Your task to perform on an android device: turn off wifi Image 0: 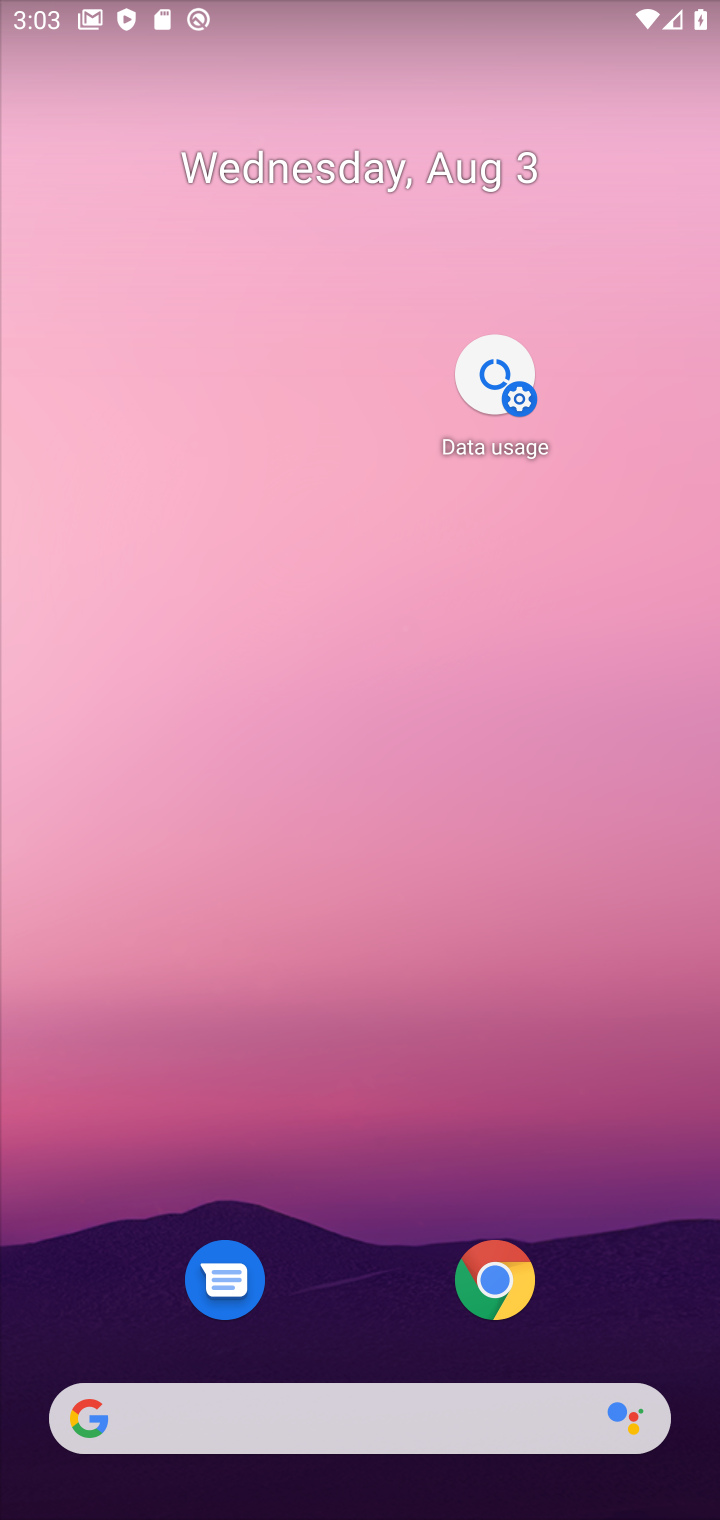
Step 0: drag from (257, 458) to (311, 608)
Your task to perform on an android device: turn off wifi Image 1: 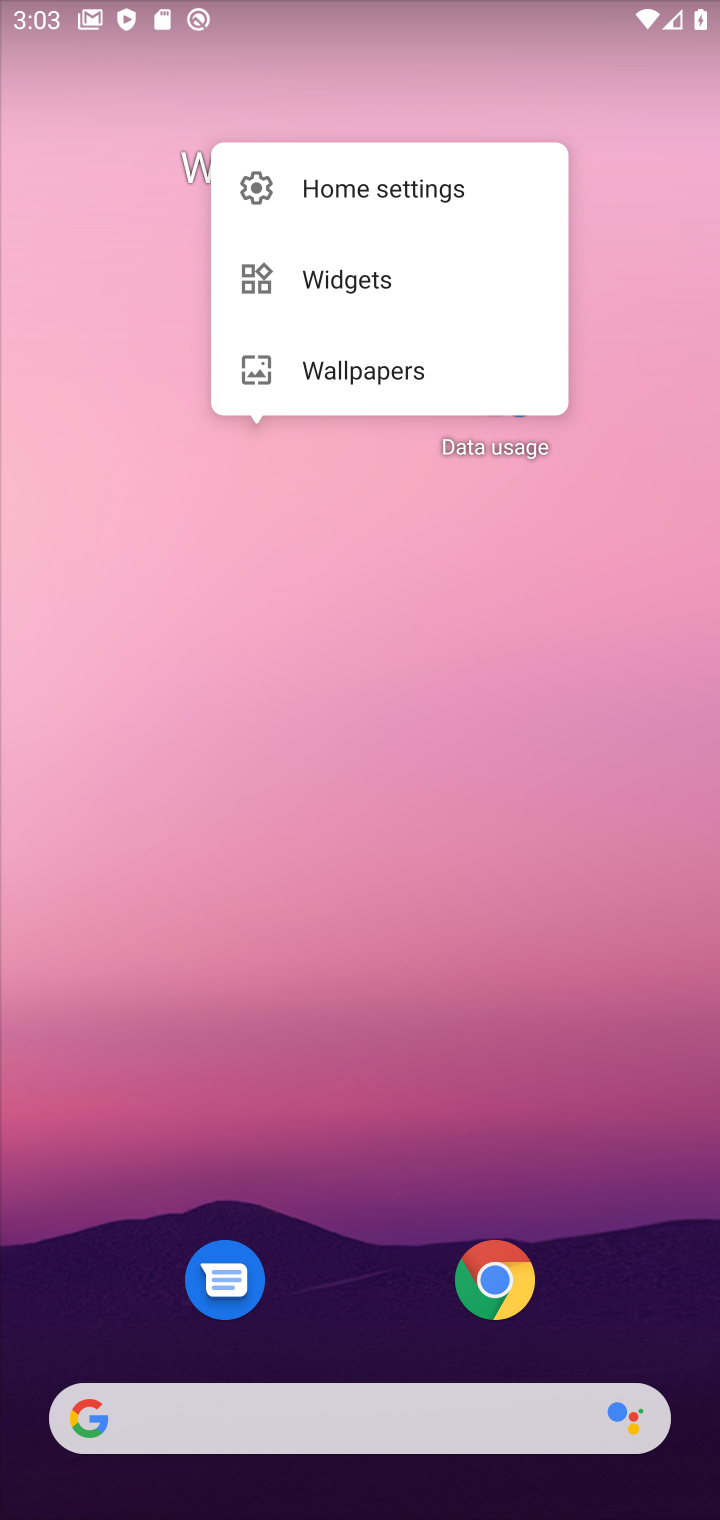
Step 1: drag from (433, 1234) to (284, 238)
Your task to perform on an android device: turn off wifi Image 2: 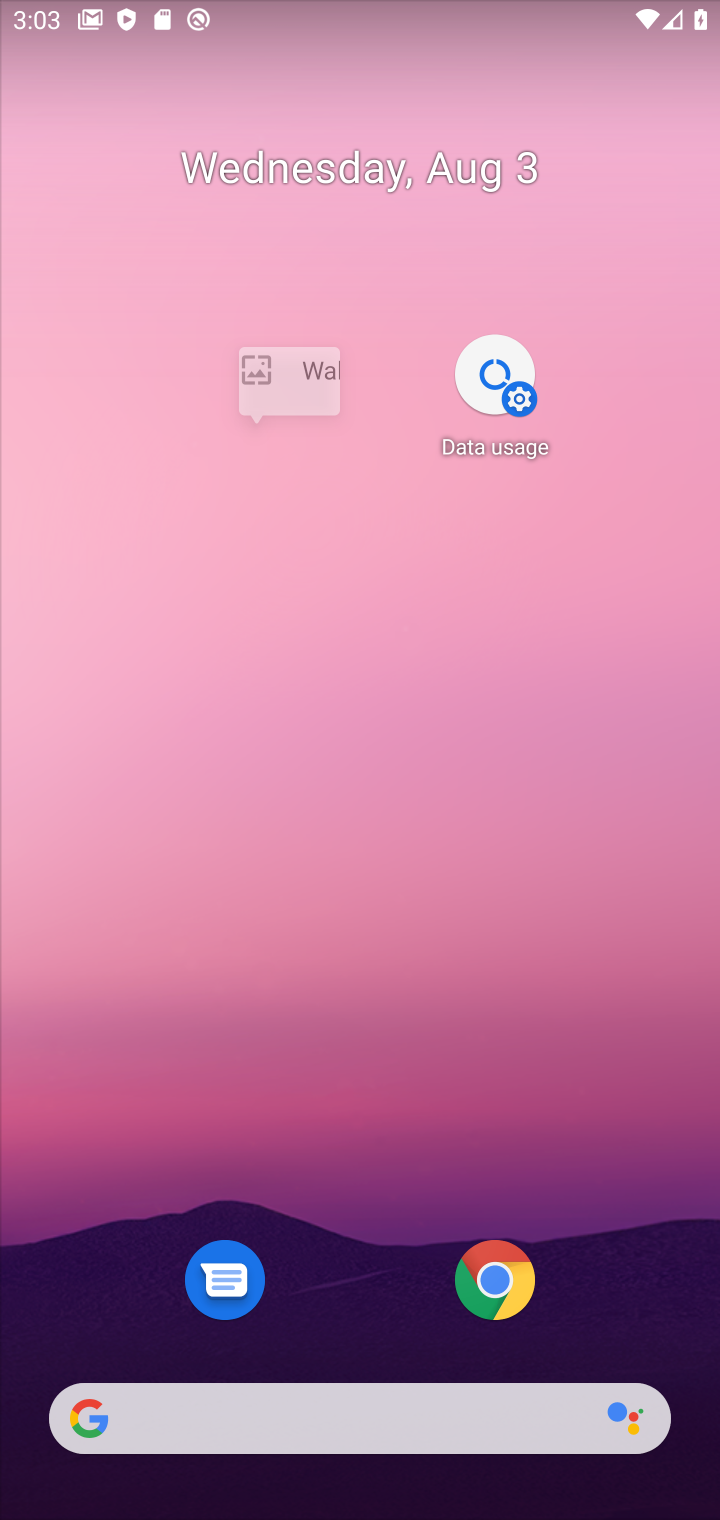
Step 2: drag from (286, 518) to (518, 318)
Your task to perform on an android device: turn off wifi Image 3: 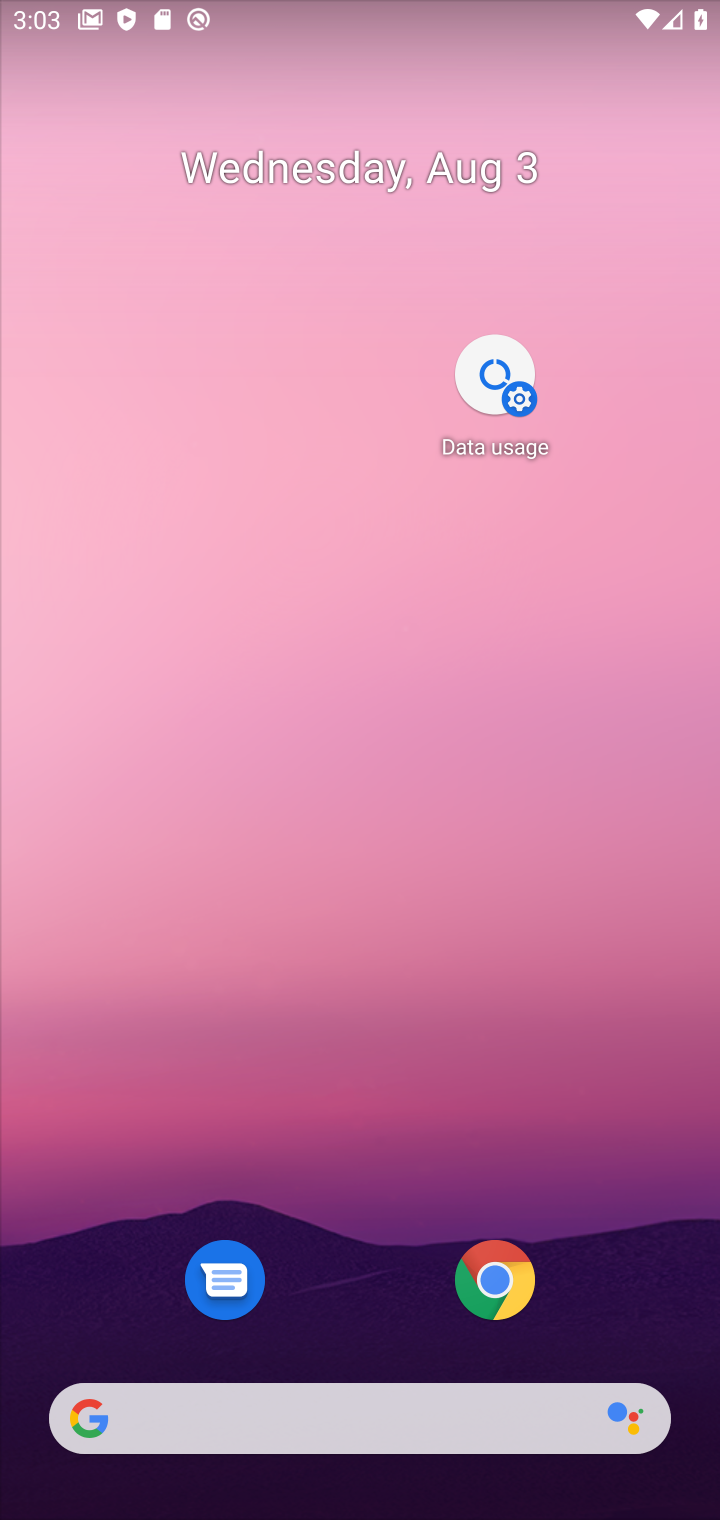
Step 3: drag from (481, 1290) to (375, 376)
Your task to perform on an android device: turn off wifi Image 4: 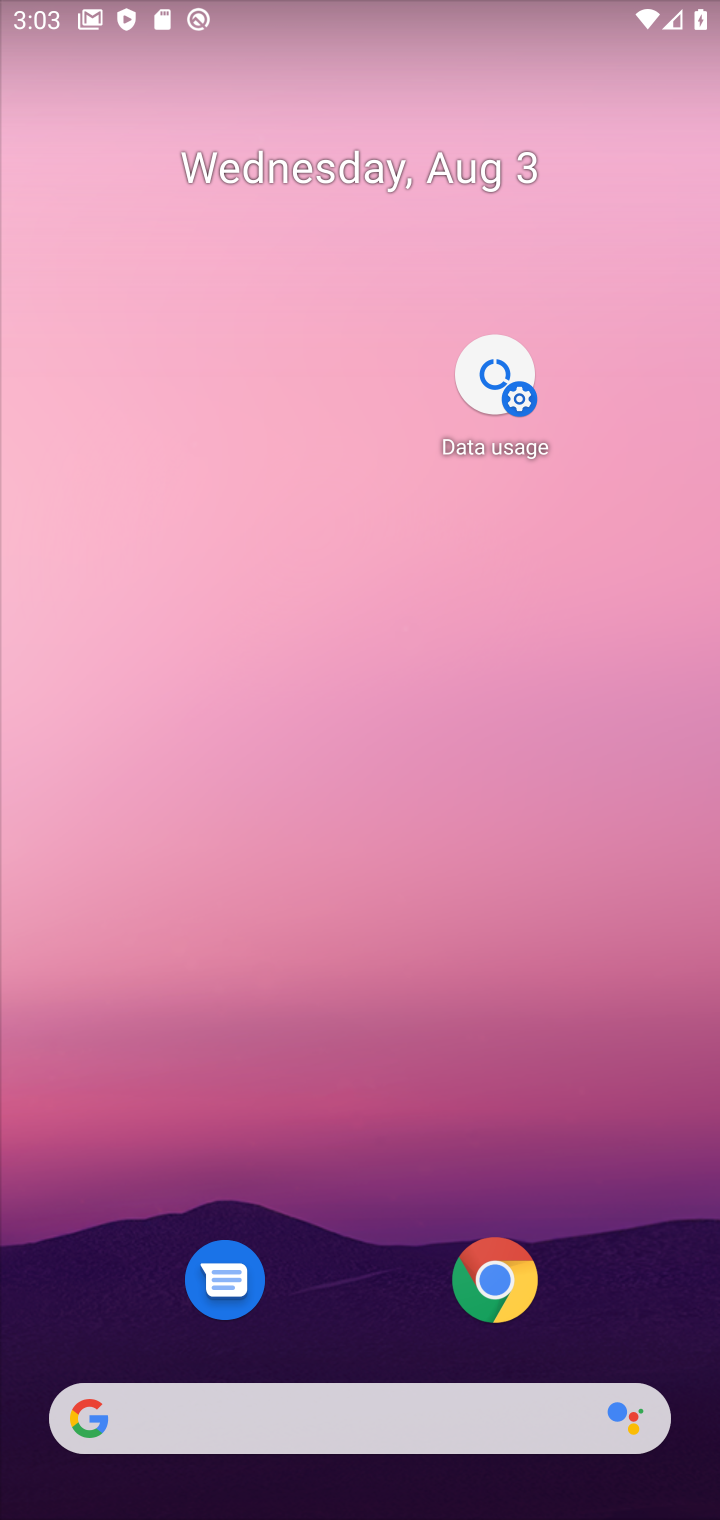
Step 4: click (337, 415)
Your task to perform on an android device: turn off wifi Image 5: 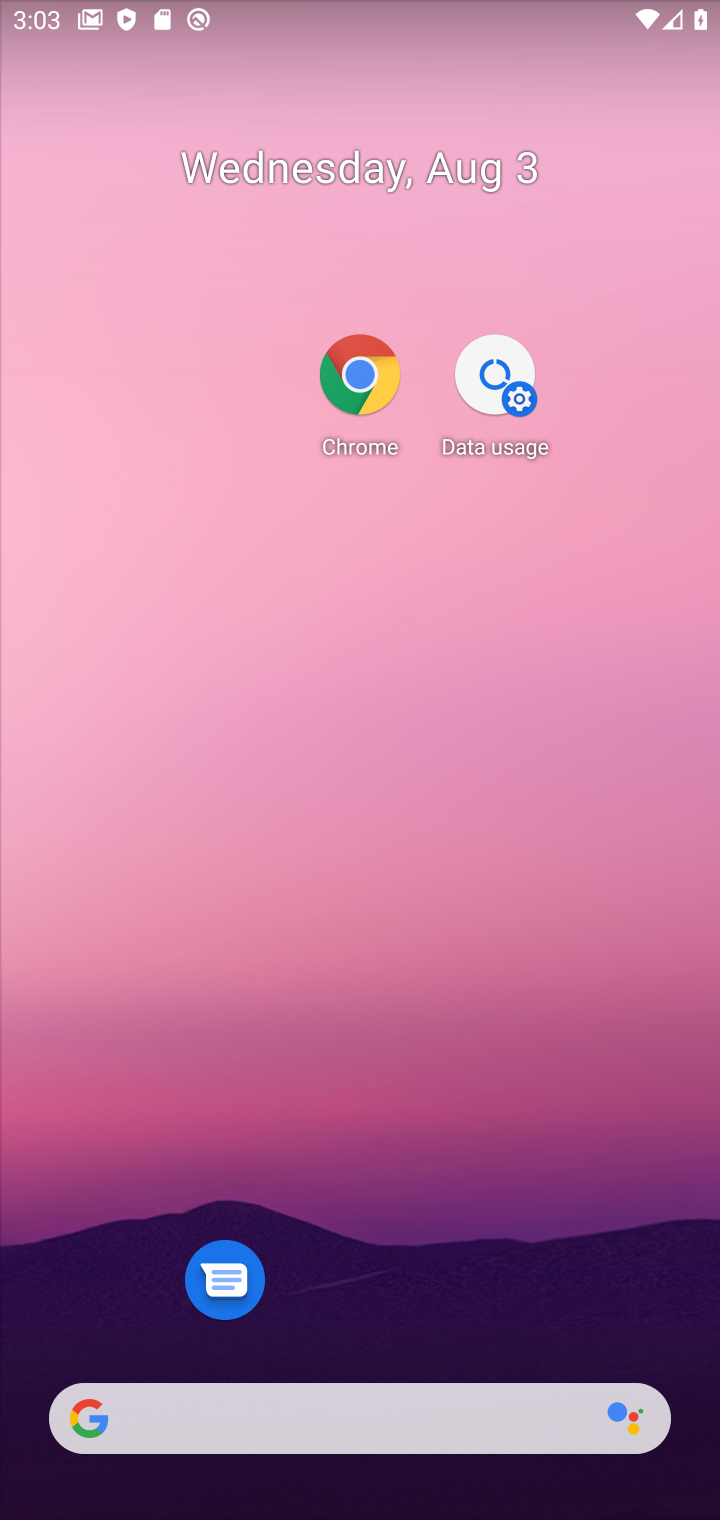
Step 5: drag from (263, 513) to (261, 426)
Your task to perform on an android device: turn off wifi Image 6: 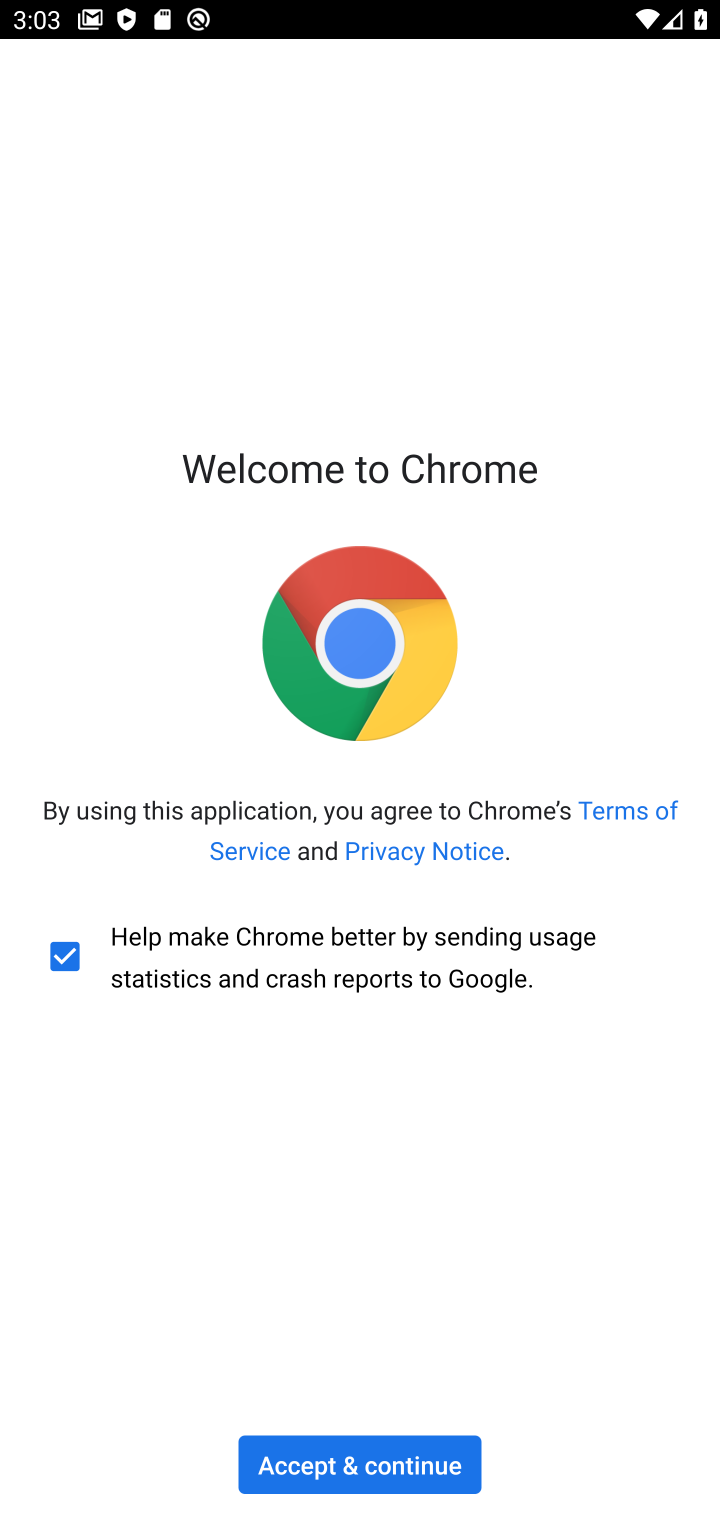
Step 6: drag from (336, 1122) to (89, 211)
Your task to perform on an android device: turn off wifi Image 7: 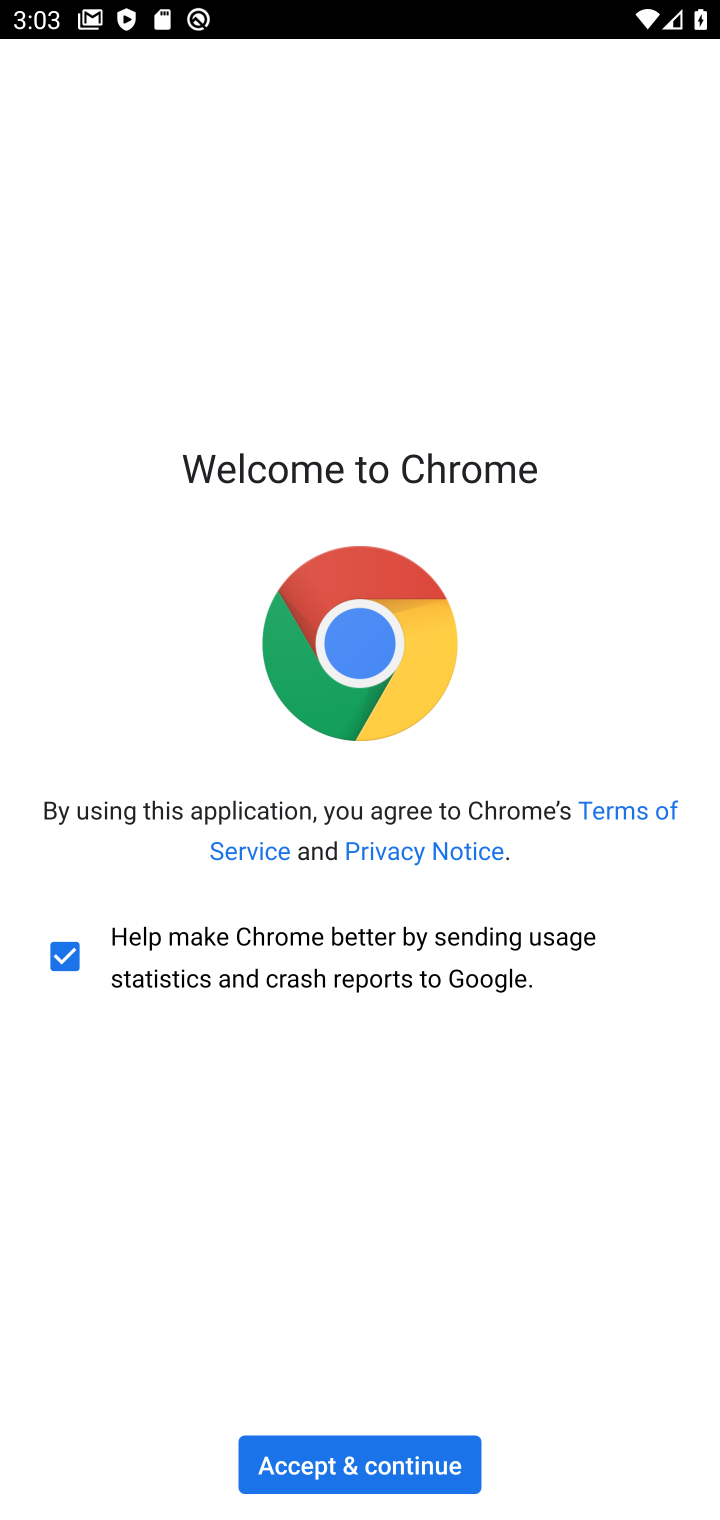
Step 7: click (332, 1453)
Your task to perform on an android device: turn off wifi Image 8: 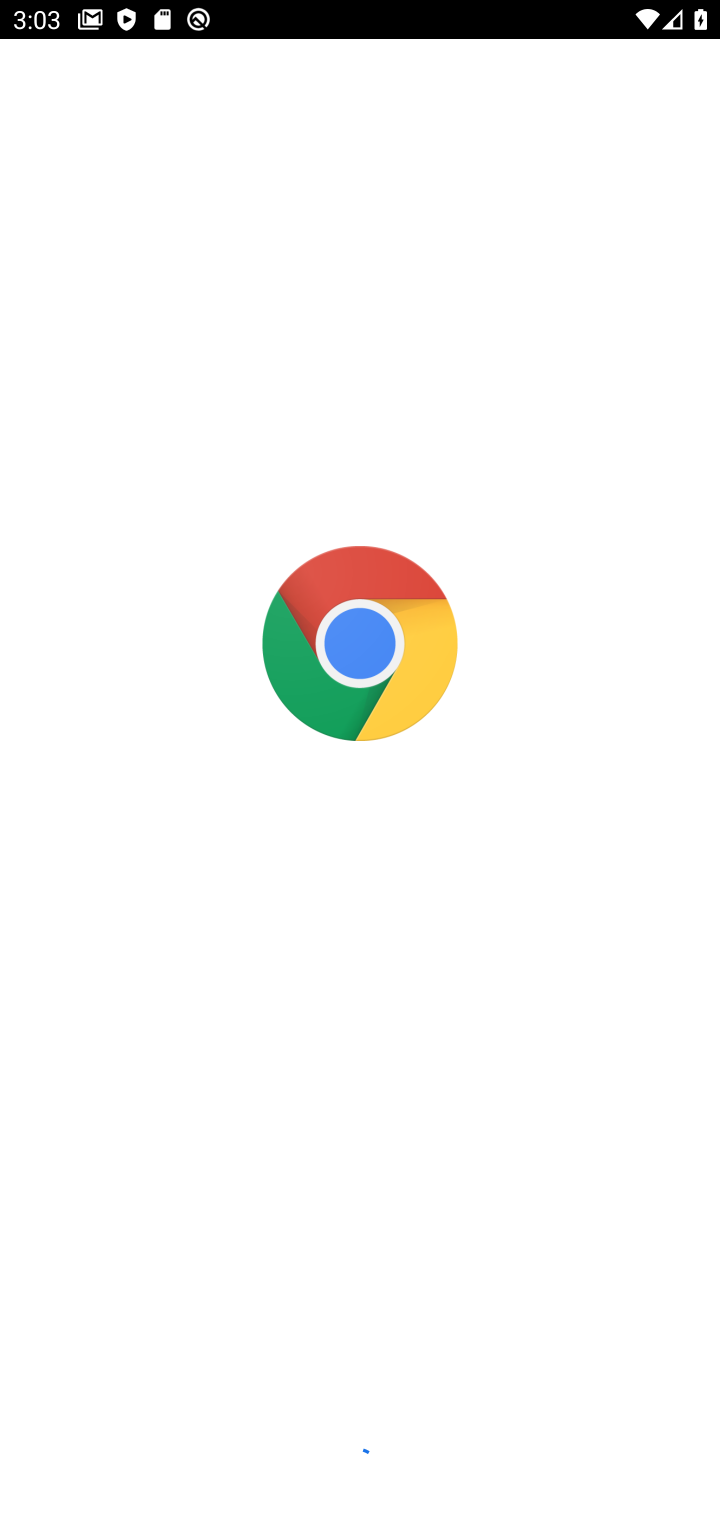
Step 8: click (334, 1453)
Your task to perform on an android device: turn off wifi Image 9: 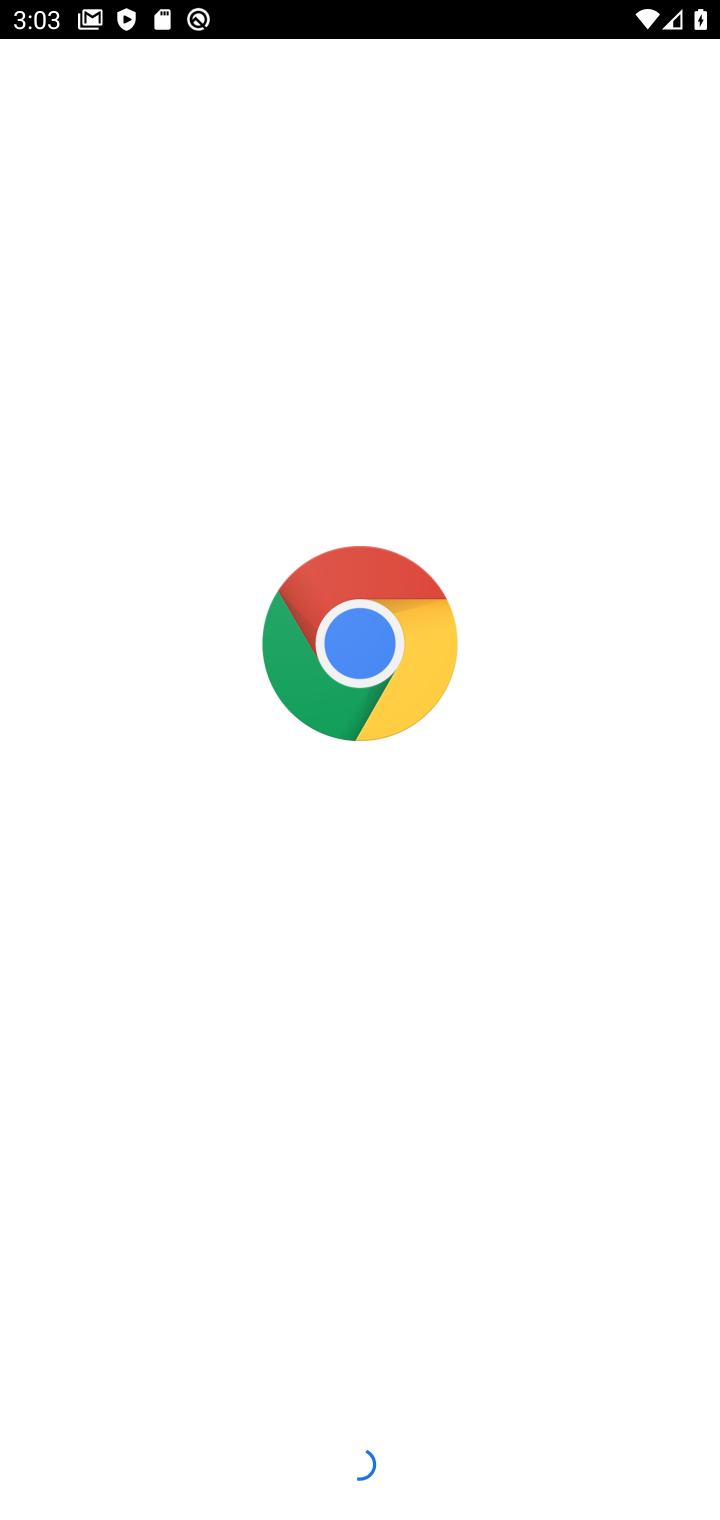
Step 9: drag from (374, 1243) to (168, 304)
Your task to perform on an android device: turn off wifi Image 10: 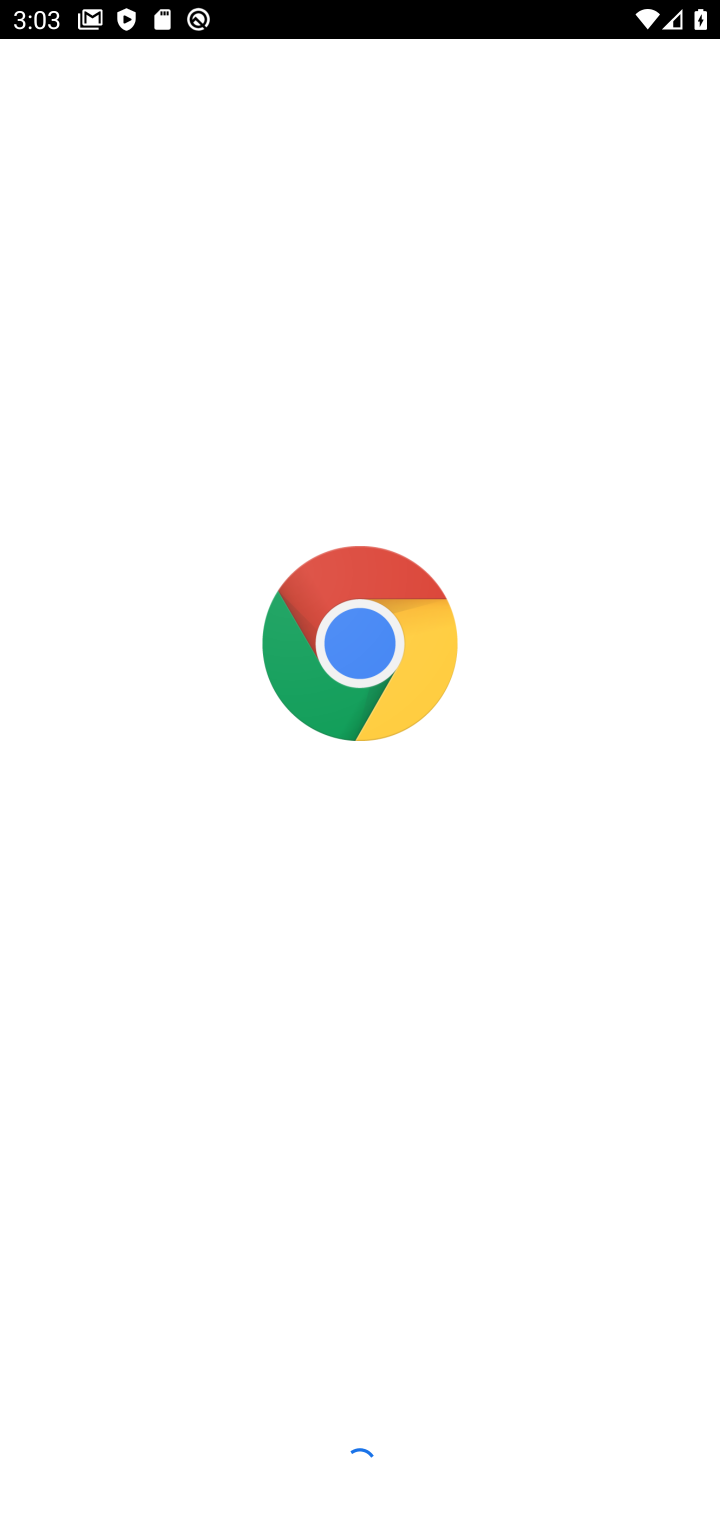
Step 10: click (130, 266)
Your task to perform on an android device: turn off wifi Image 11: 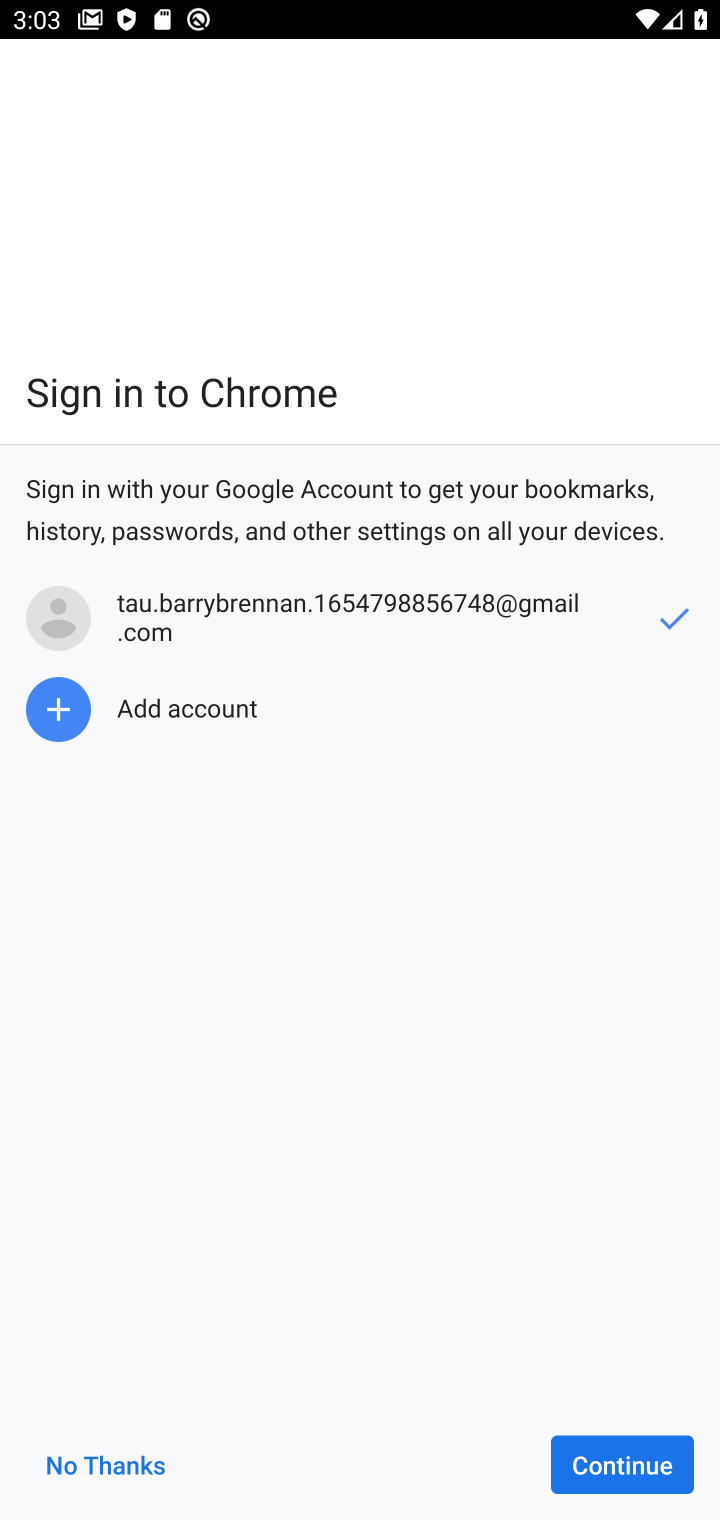
Step 11: click (85, 1468)
Your task to perform on an android device: turn off wifi Image 12: 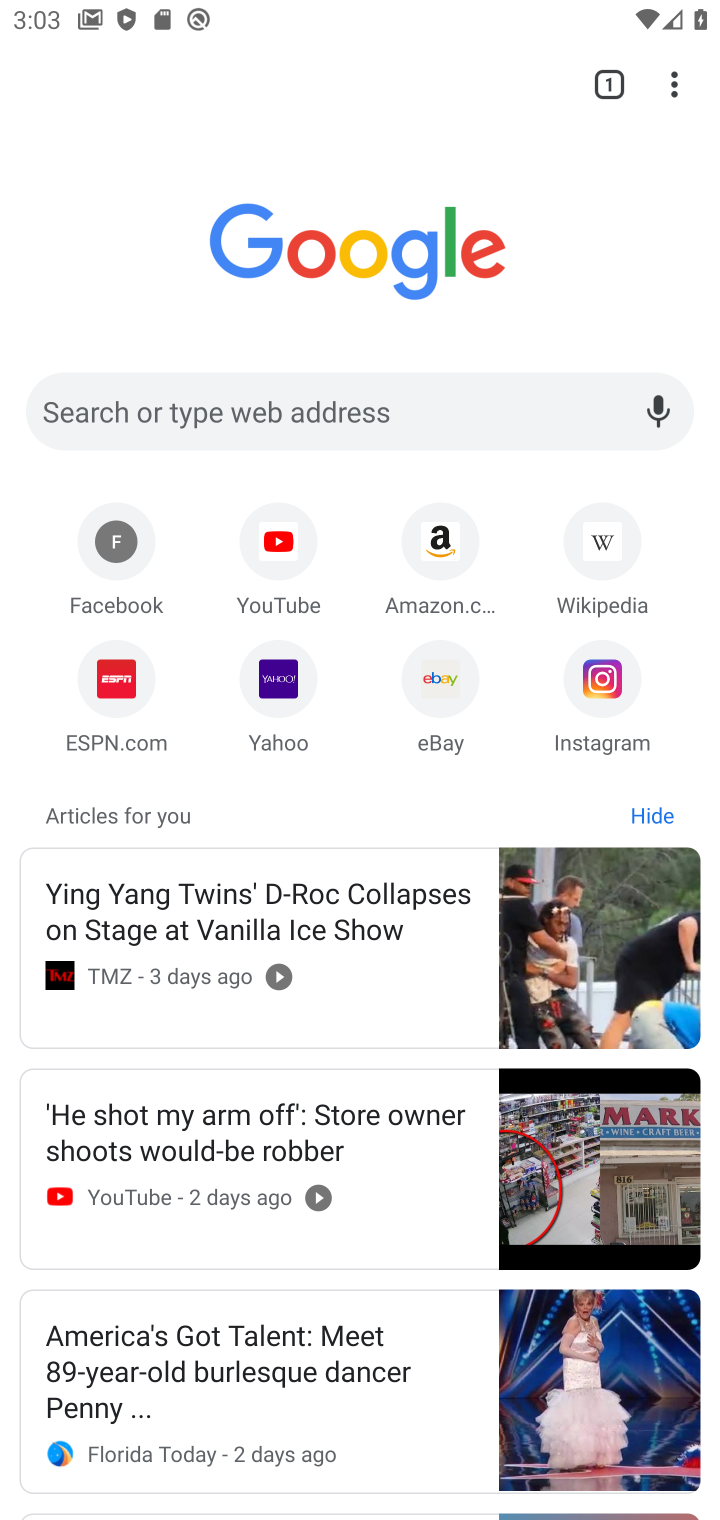
Step 12: press back button
Your task to perform on an android device: turn off wifi Image 13: 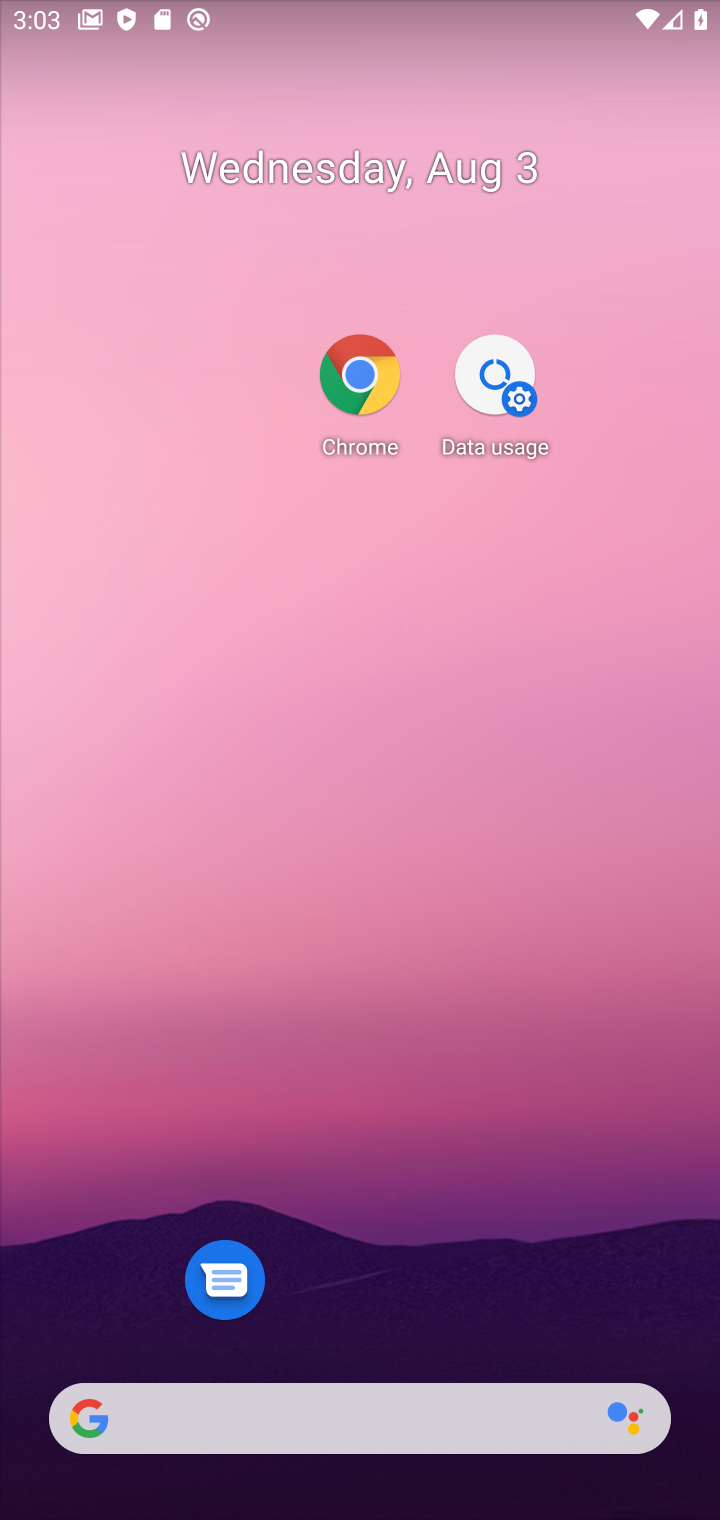
Step 13: drag from (314, 1063) to (192, 192)
Your task to perform on an android device: turn off wifi Image 14: 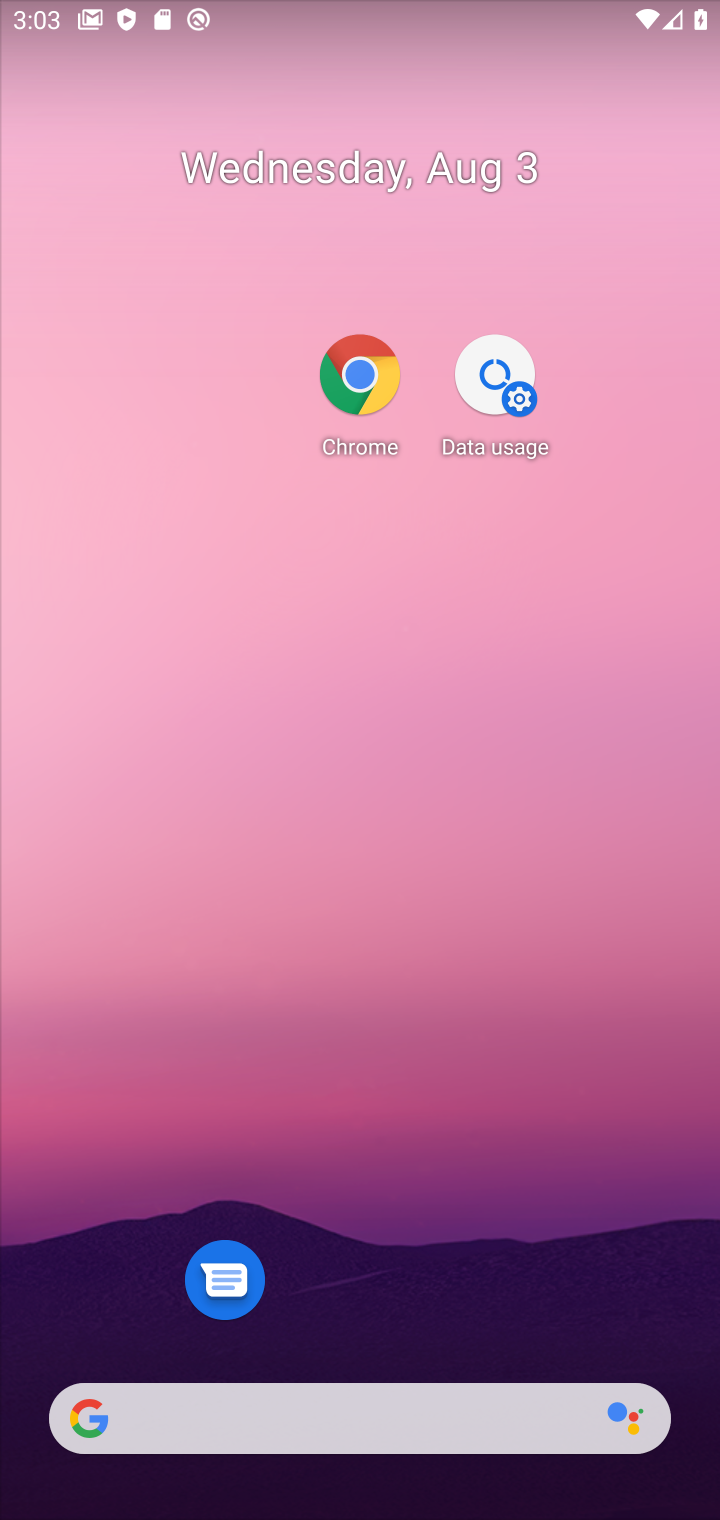
Step 14: click (233, 764)
Your task to perform on an android device: turn off wifi Image 15: 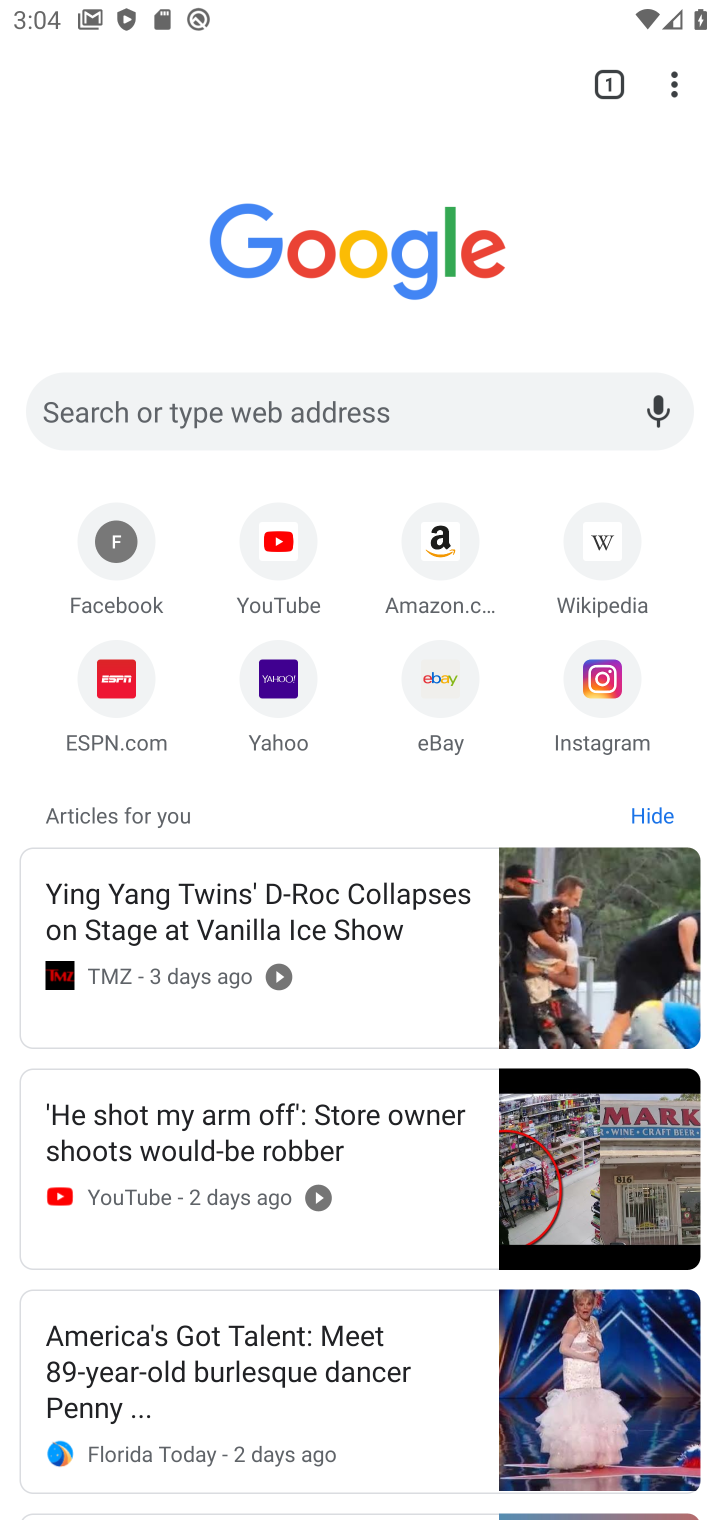
Step 15: press back button
Your task to perform on an android device: turn off wifi Image 16: 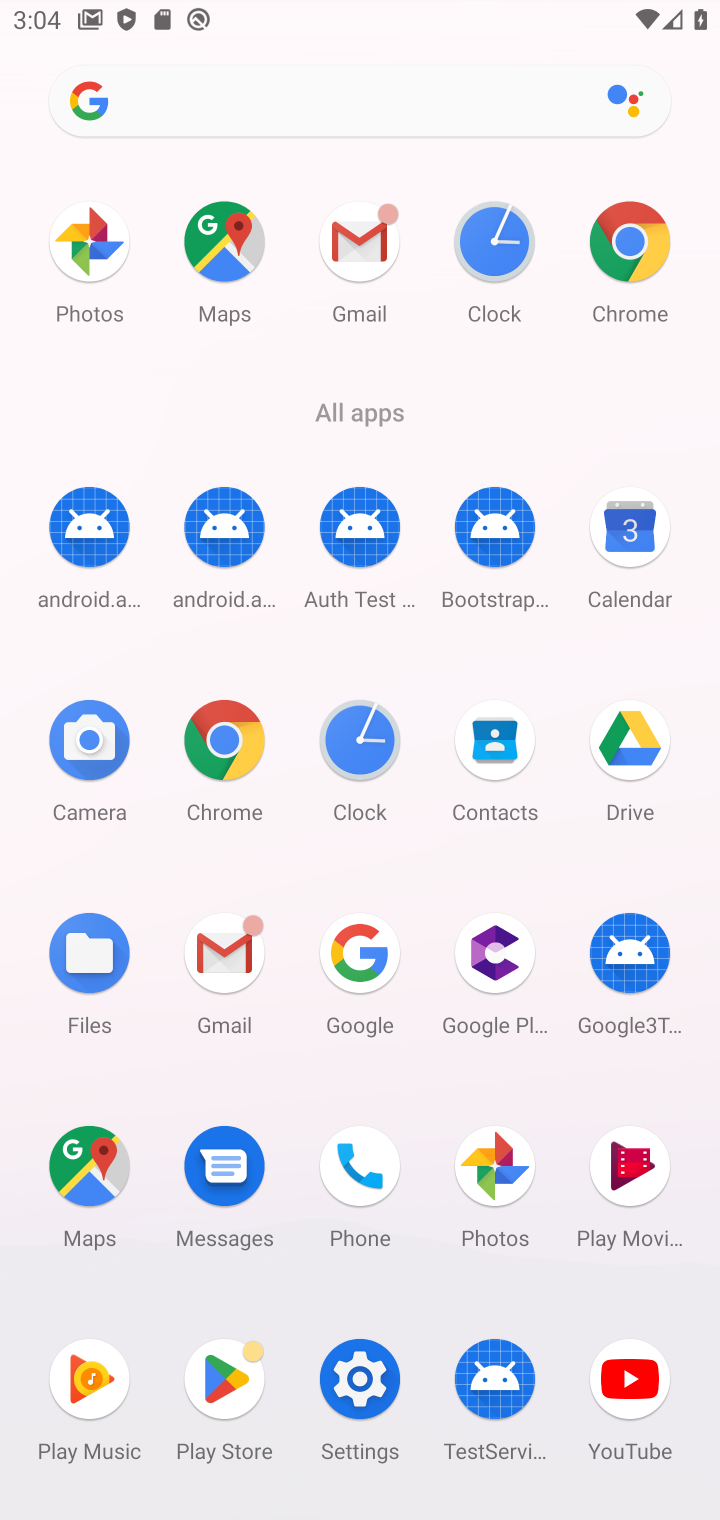
Step 16: click (363, 1384)
Your task to perform on an android device: turn off wifi Image 17: 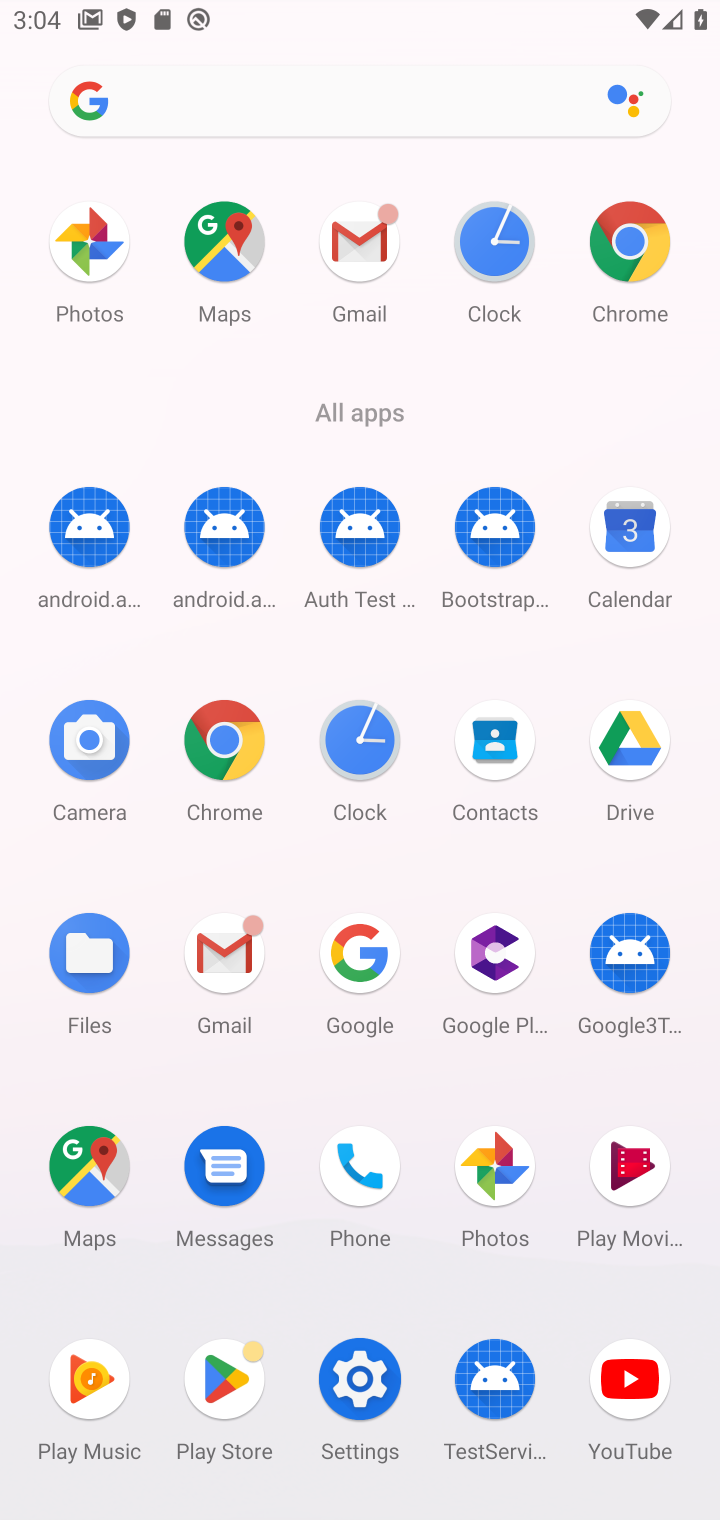
Step 17: click (365, 1382)
Your task to perform on an android device: turn off wifi Image 18: 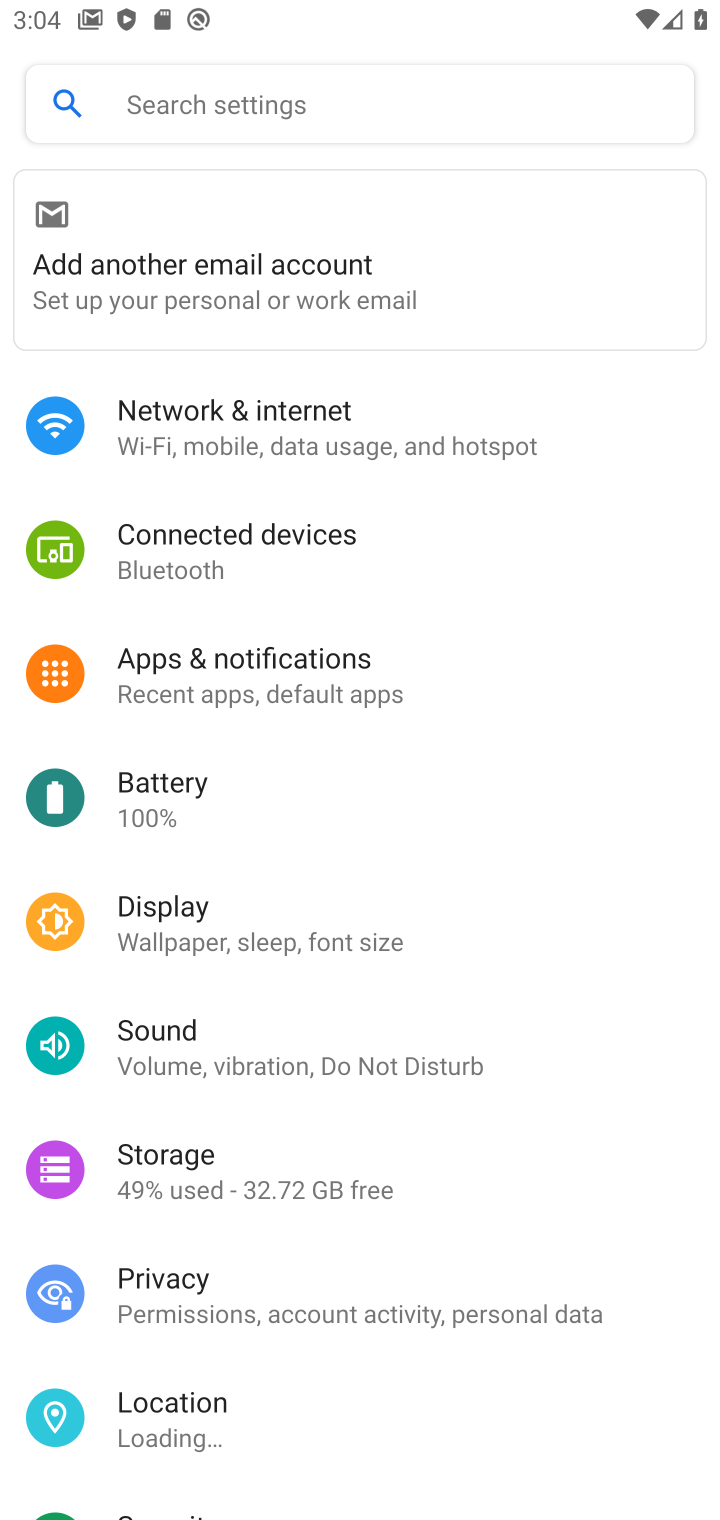
Step 18: click (233, 295)
Your task to perform on an android device: turn off wifi Image 19: 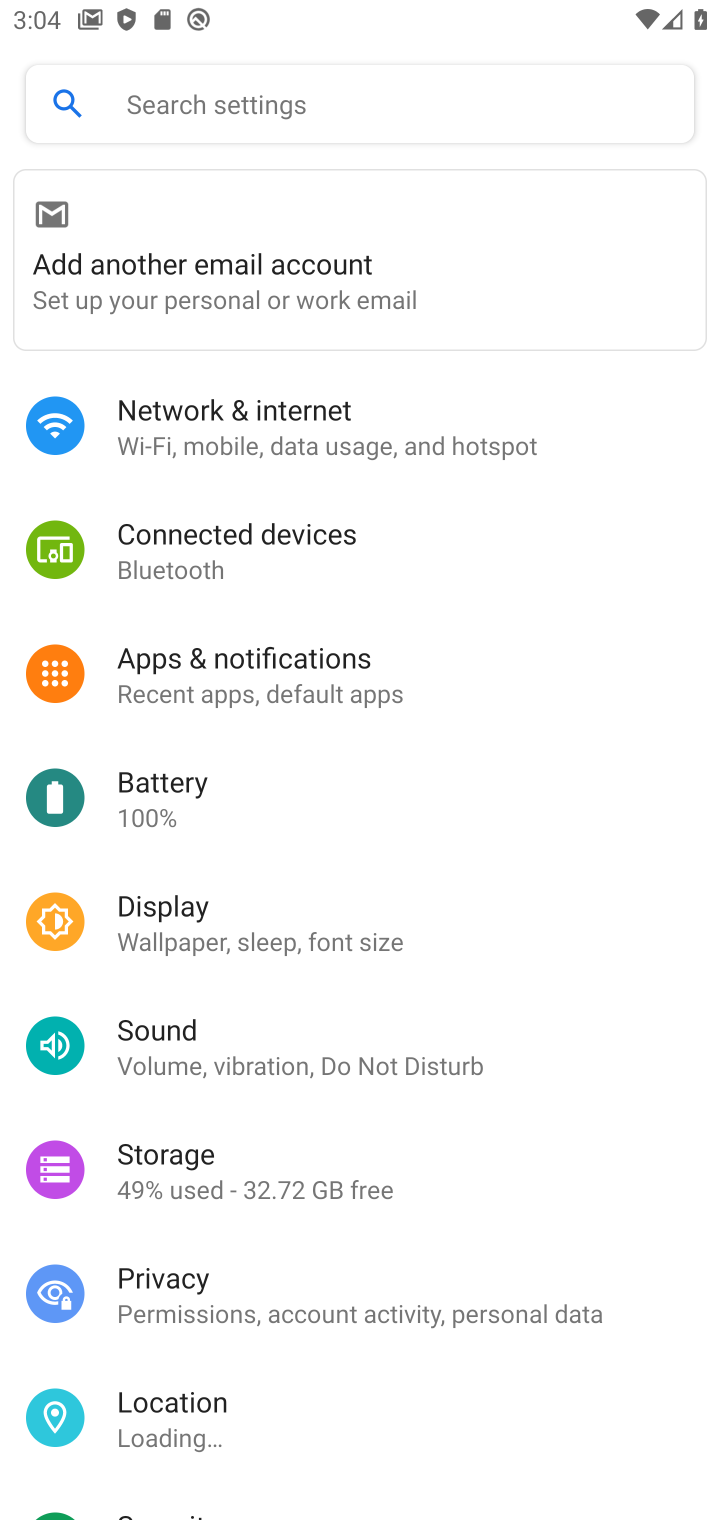
Step 19: click (214, 418)
Your task to perform on an android device: turn off wifi Image 20: 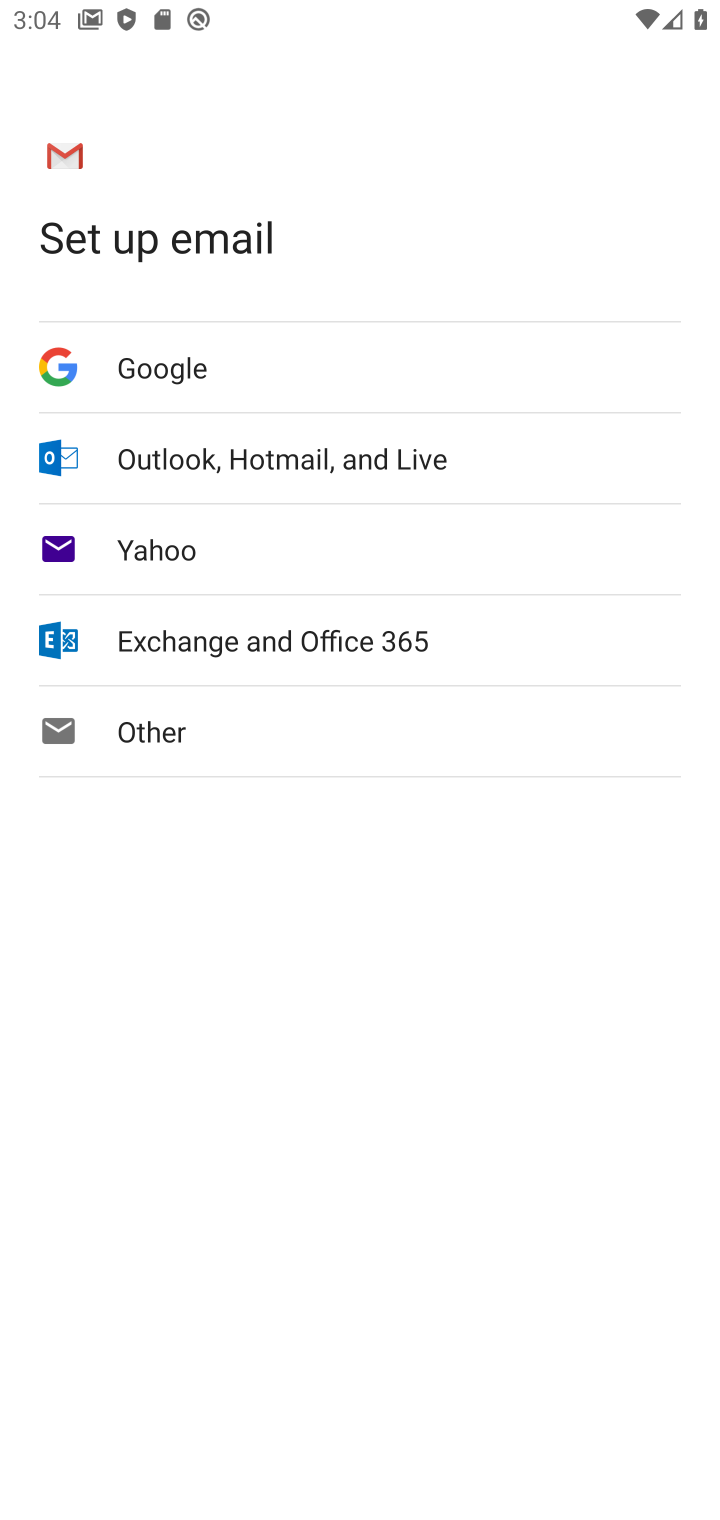
Step 20: click (89, 153)
Your task to perform on an android device: turn off wifi Image 21: 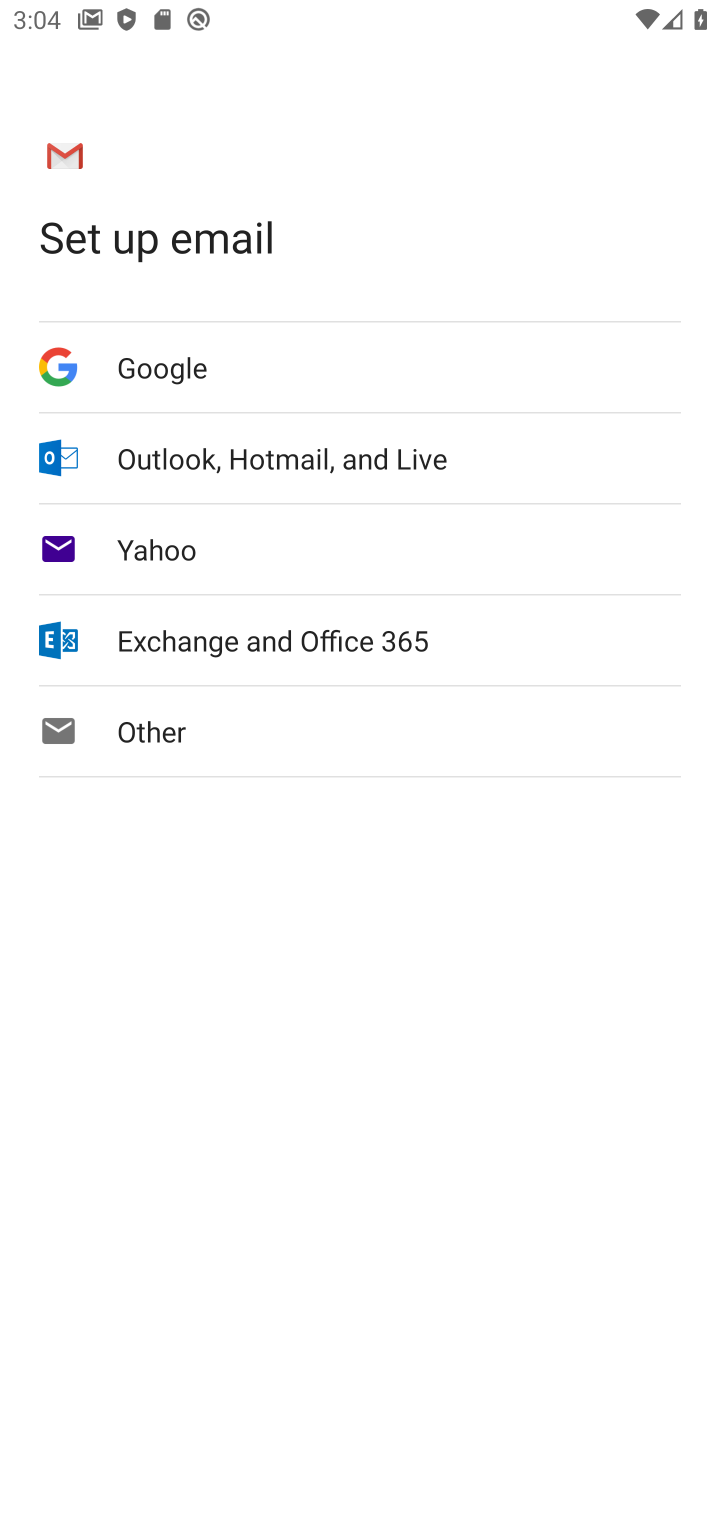
Step 21: press back button
Your task to perform on an android device: turn off wifi Image 22: 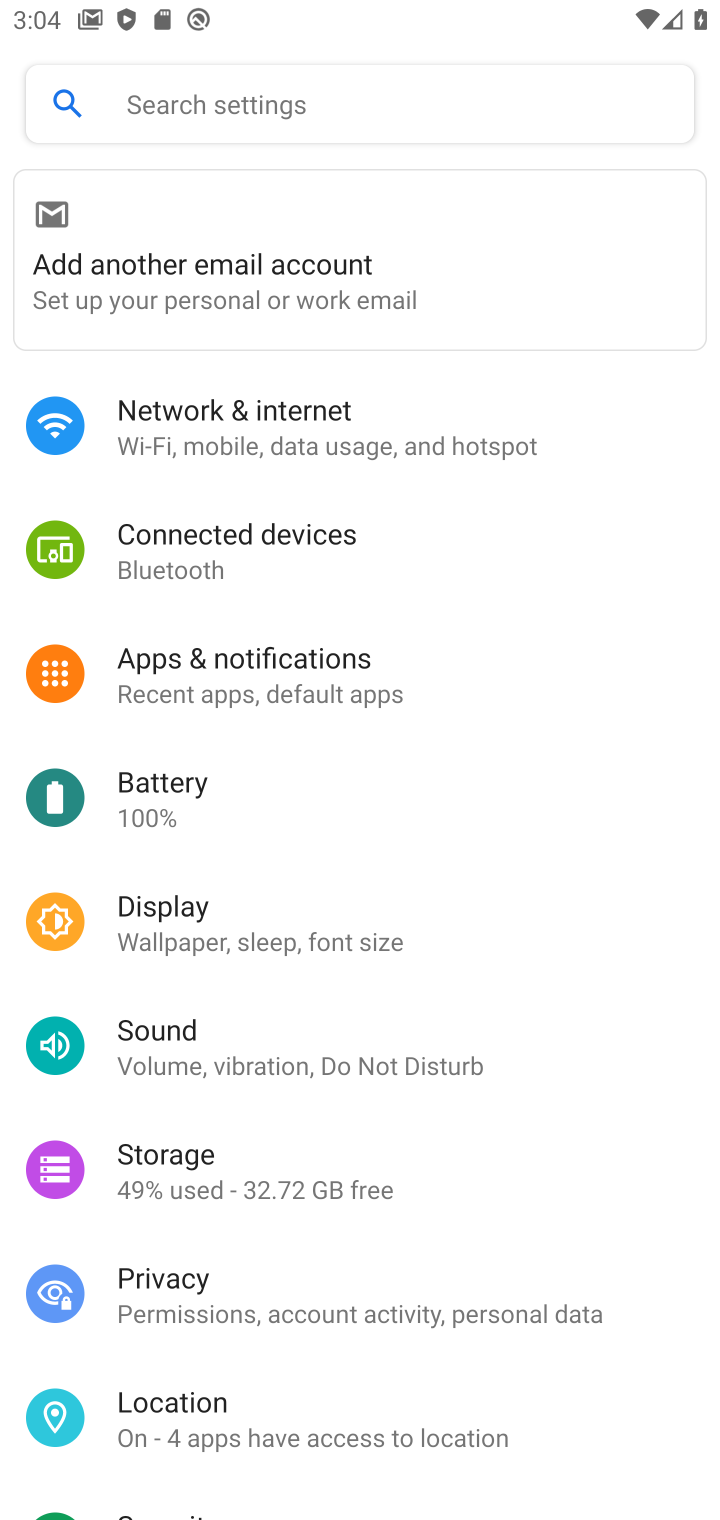
Step 22: click (218, 425)
Your task to perform on an android device: turn off wifi Image 23: 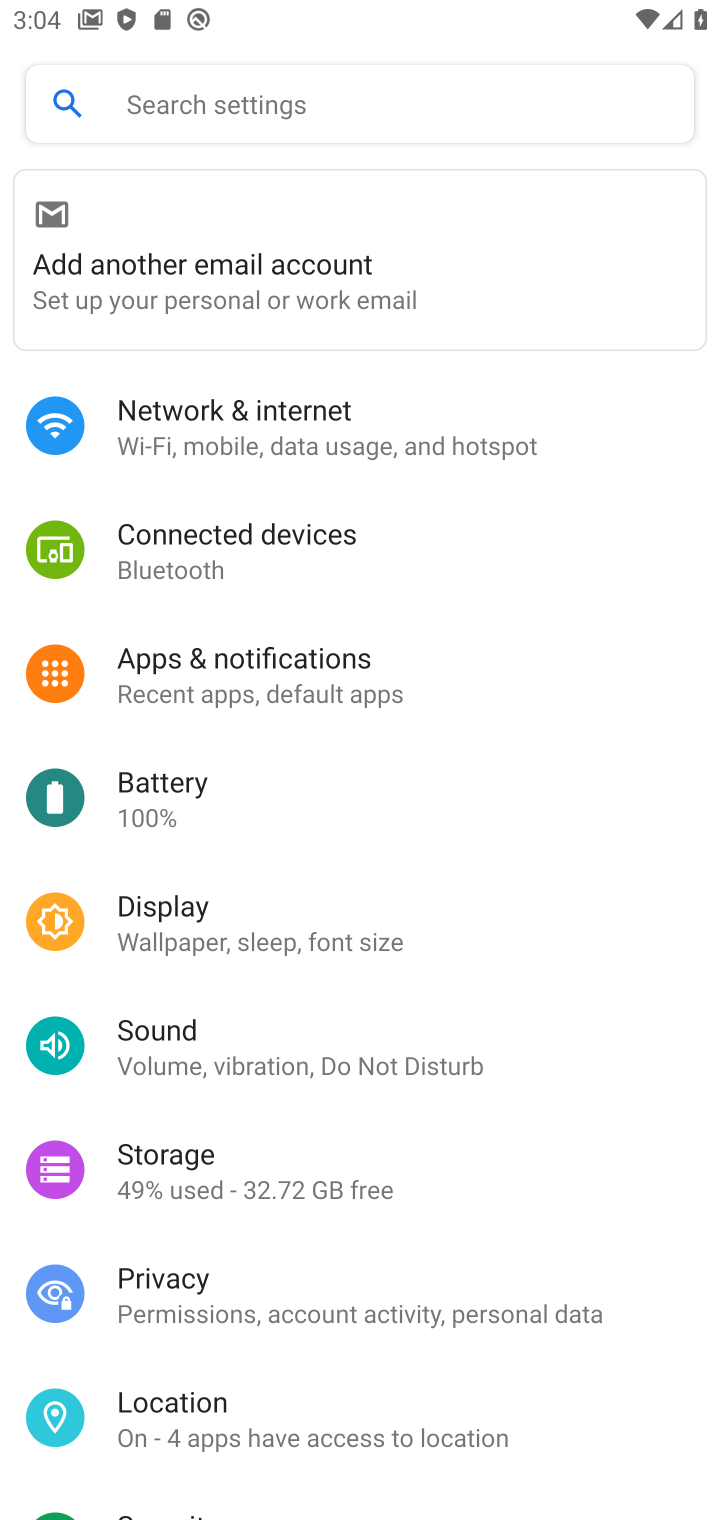
Step 23: click (218, 425)
Your task to perform on an android device: turn off wifi Image 24: 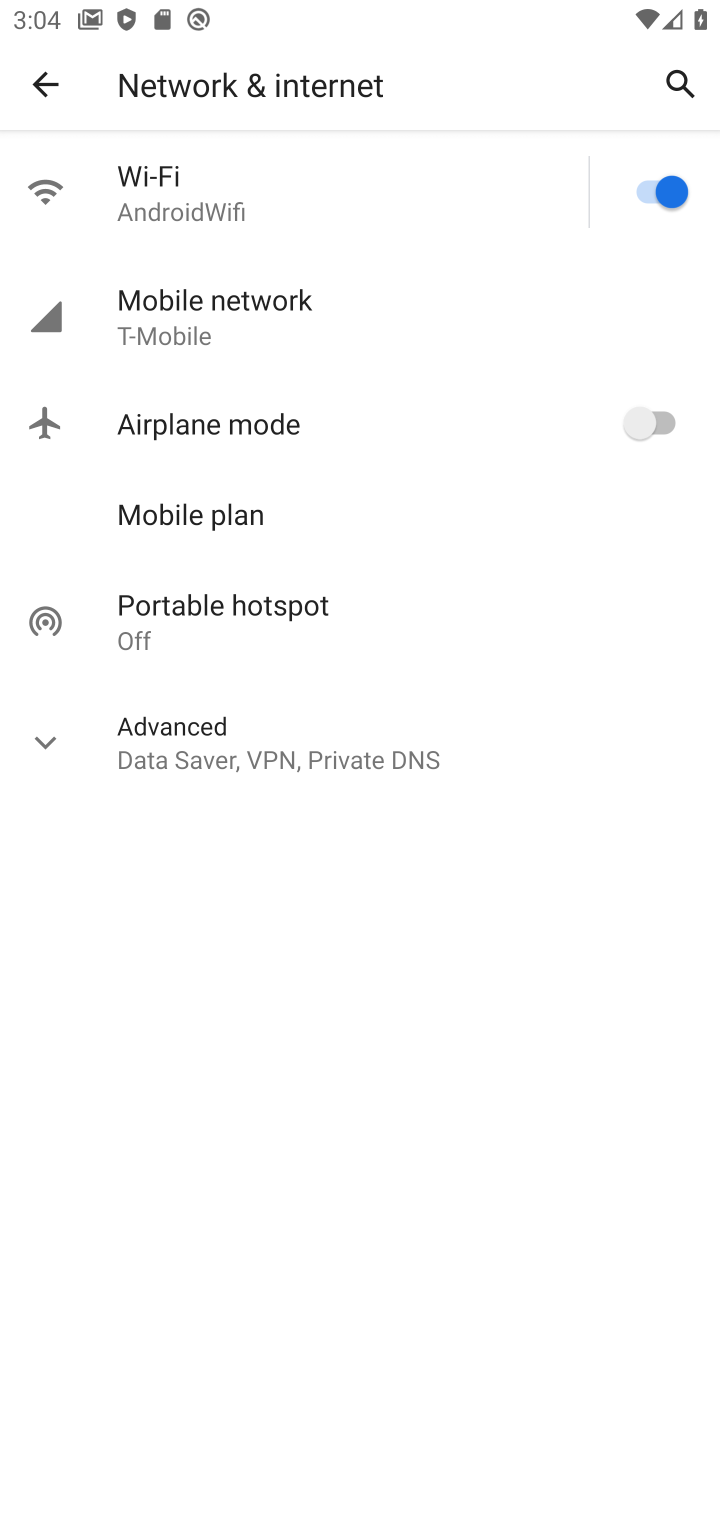
Step 24: click (671, 177)
Your task to perform on an android device: turn off wifi Image 25: 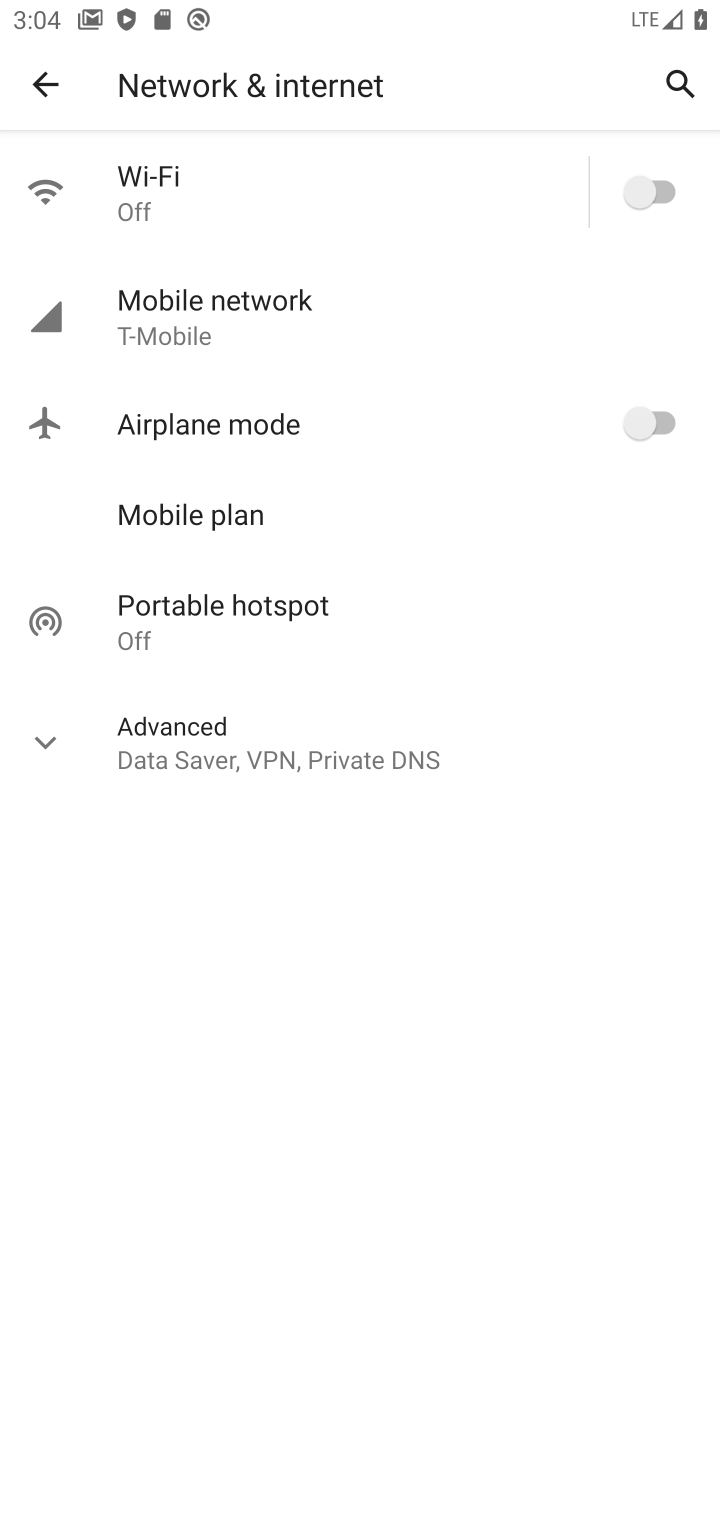
Step 25: task complete